Your task to perform on an android device: clear all cookies in the chrome app Image 0: 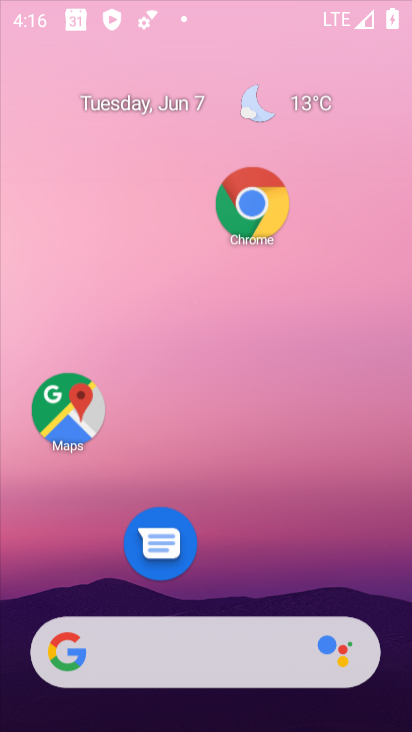
Step 0: press home button
Your task to perform on an android device: clear all cookies in the chrome app Image 1: 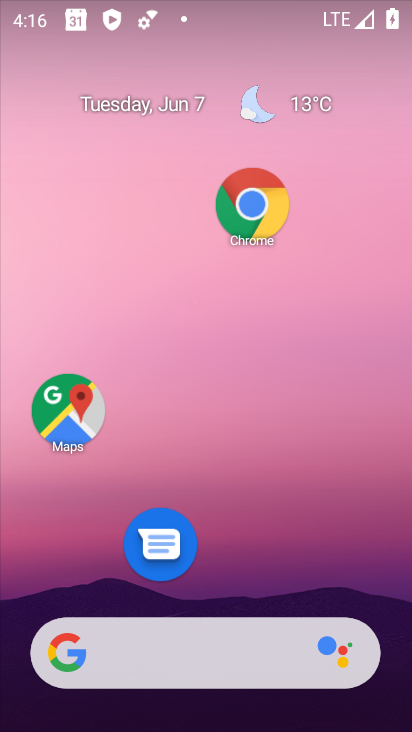
Step 1: click (246, 196)
Your task to perform on an android device: clear all cookies in the chrome app Image 2: 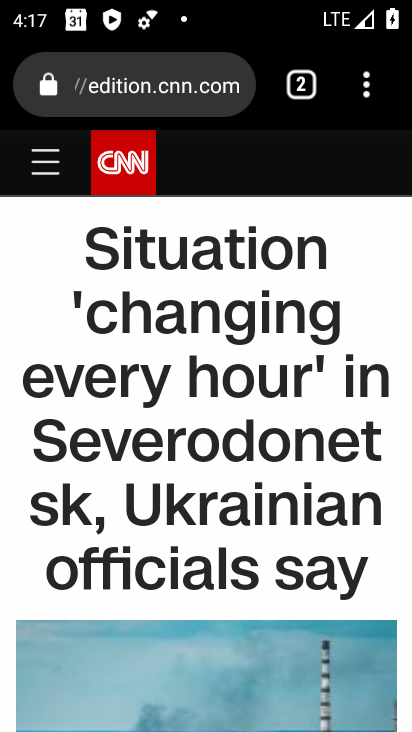
Step 2: click (369, 85)
Your task to perform on an android device: clear all cookies in the chrome app Image 3: 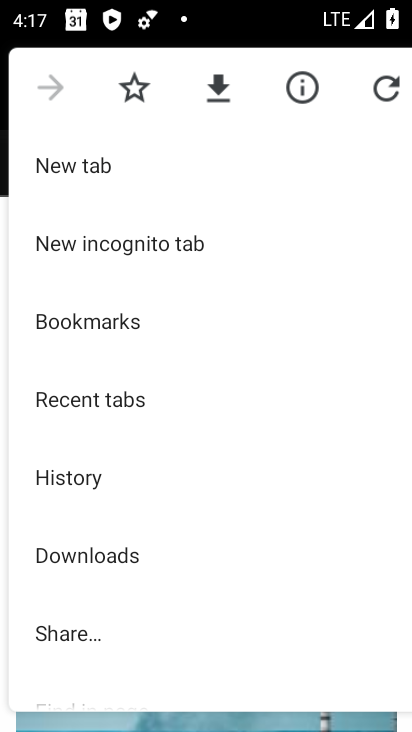
Step 3: drag from (146, 619) to (162, 461)
Your task to perform on an android device: clear all cookies in the chrome app Image 4: 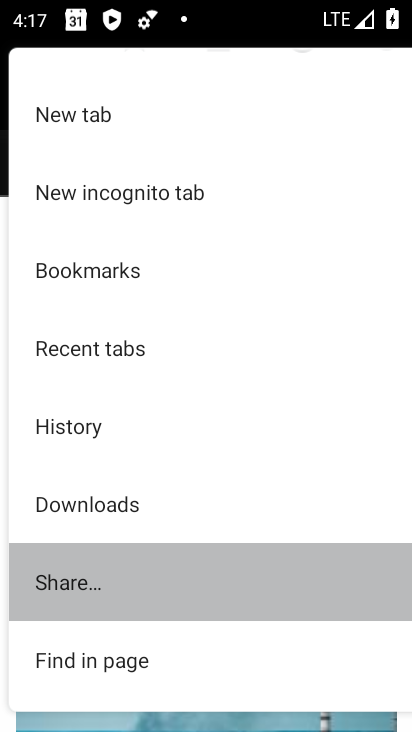
Step 4: drag from (171, 343) to (177, 268)
Your task to perform on an android device: clear all cookies in the chrome app Image 5: 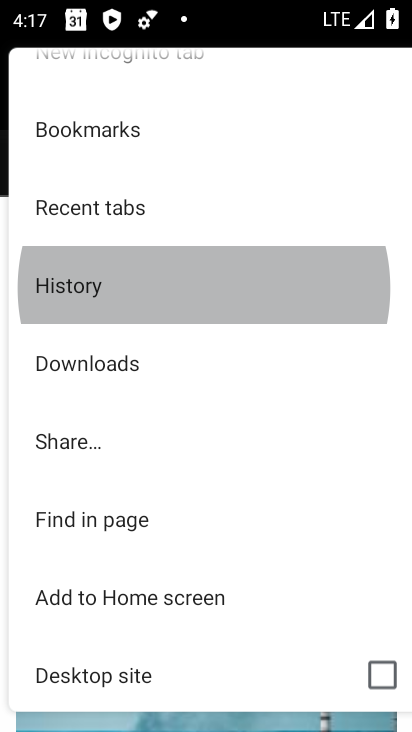
Step 5: click (177, 236)
Your task to perform on an android device: clear all cookies in the chrome app Image 6: 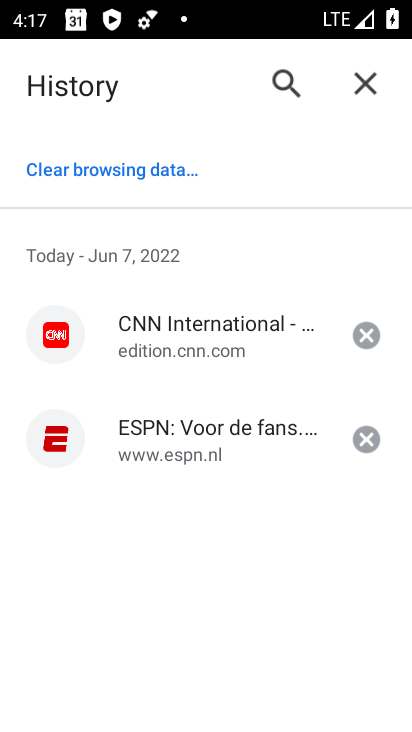
Step 6: click (128, 173)
Your task to perform on an android device: clear all cookies in the chrome app Image 7: 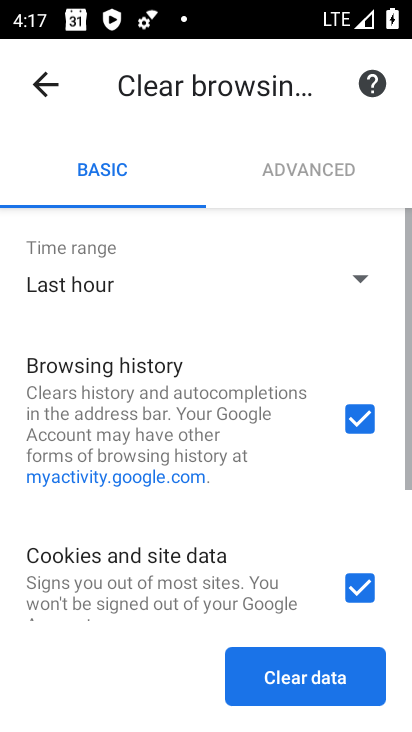
Step 7: click (309, 672)
Your task to perform on an android device: clear all cookies in the chrome app Image 8: 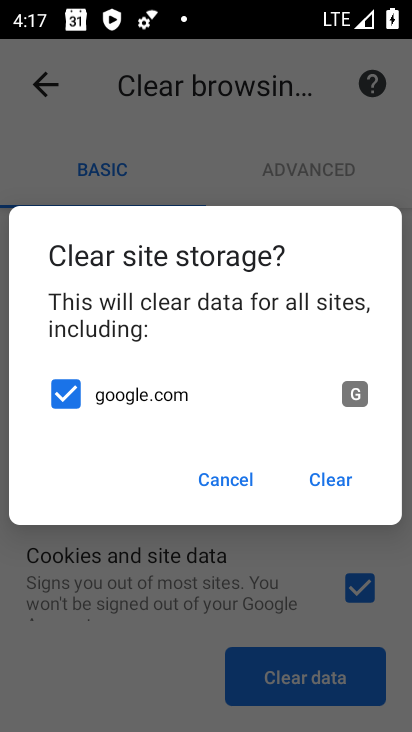
Step 8: click (344, 476)
Your task to perform on an android device: clear all cookies in the chrome app Image 9: 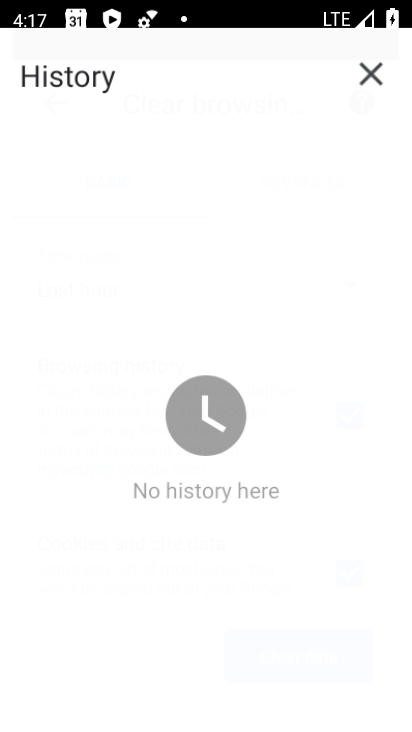
Step 9: task complete